Your task to perform on an android device: clear all cookies in the chrome app Image 0: 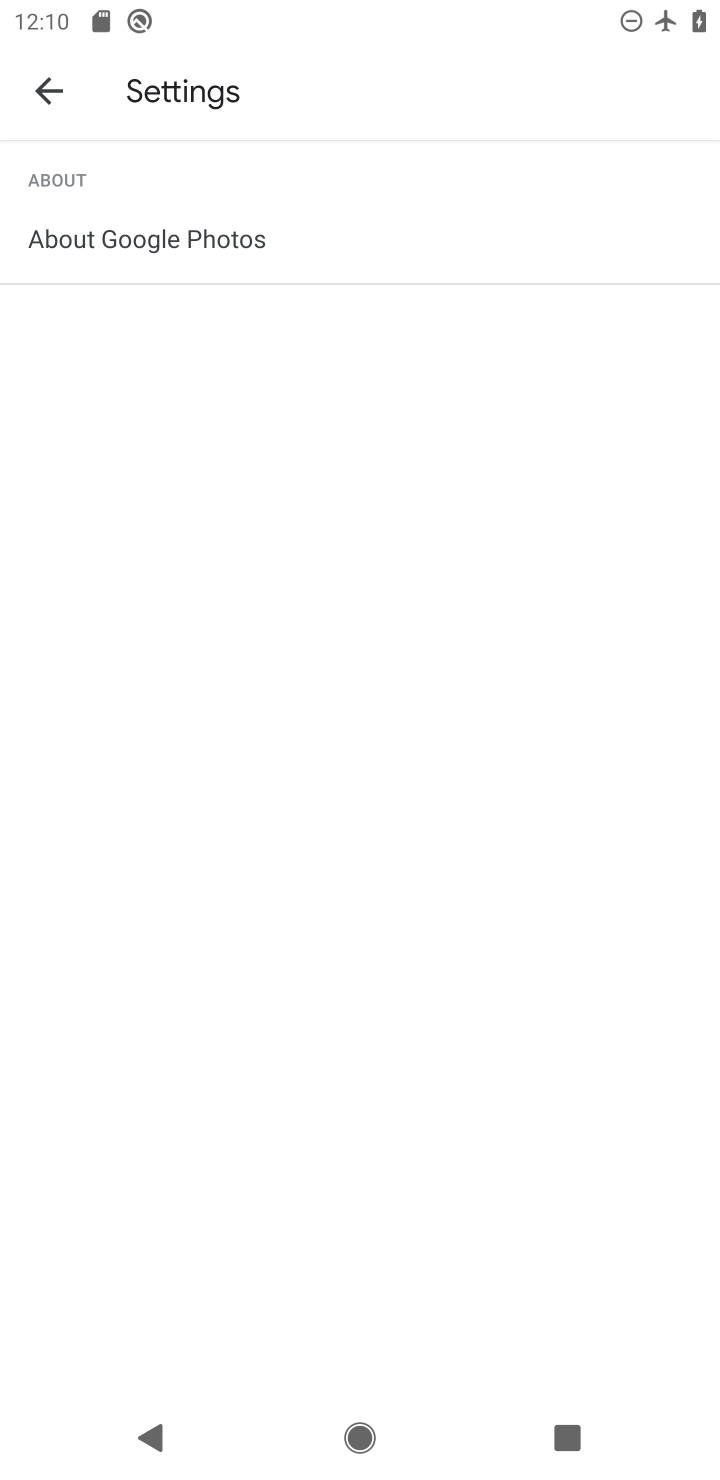
Step 0: press home button
Your task to perform on an android device: clear all cookies in the chrome app Image 1: 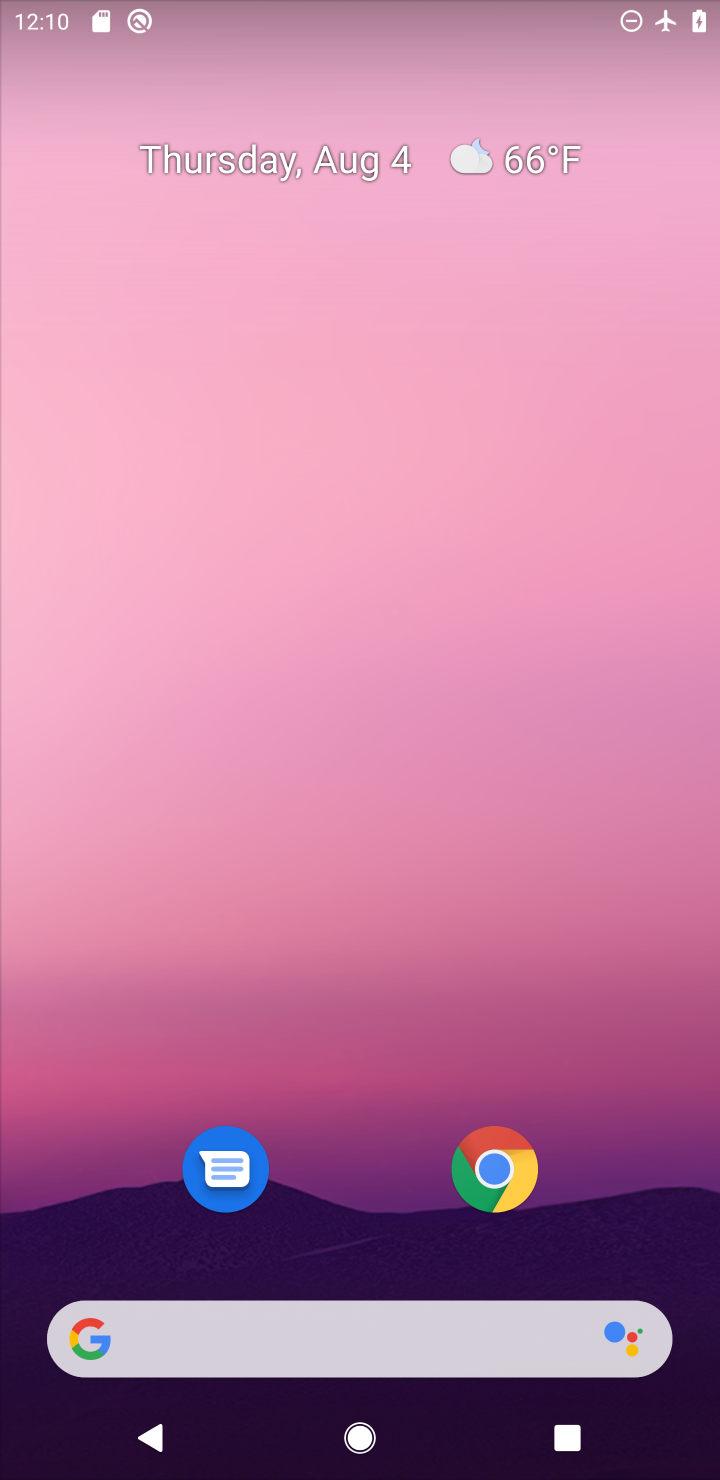
Step 1: click (501, 1170)
Your task to perform on an android device: clear all cookies in the chrome app Image 2: 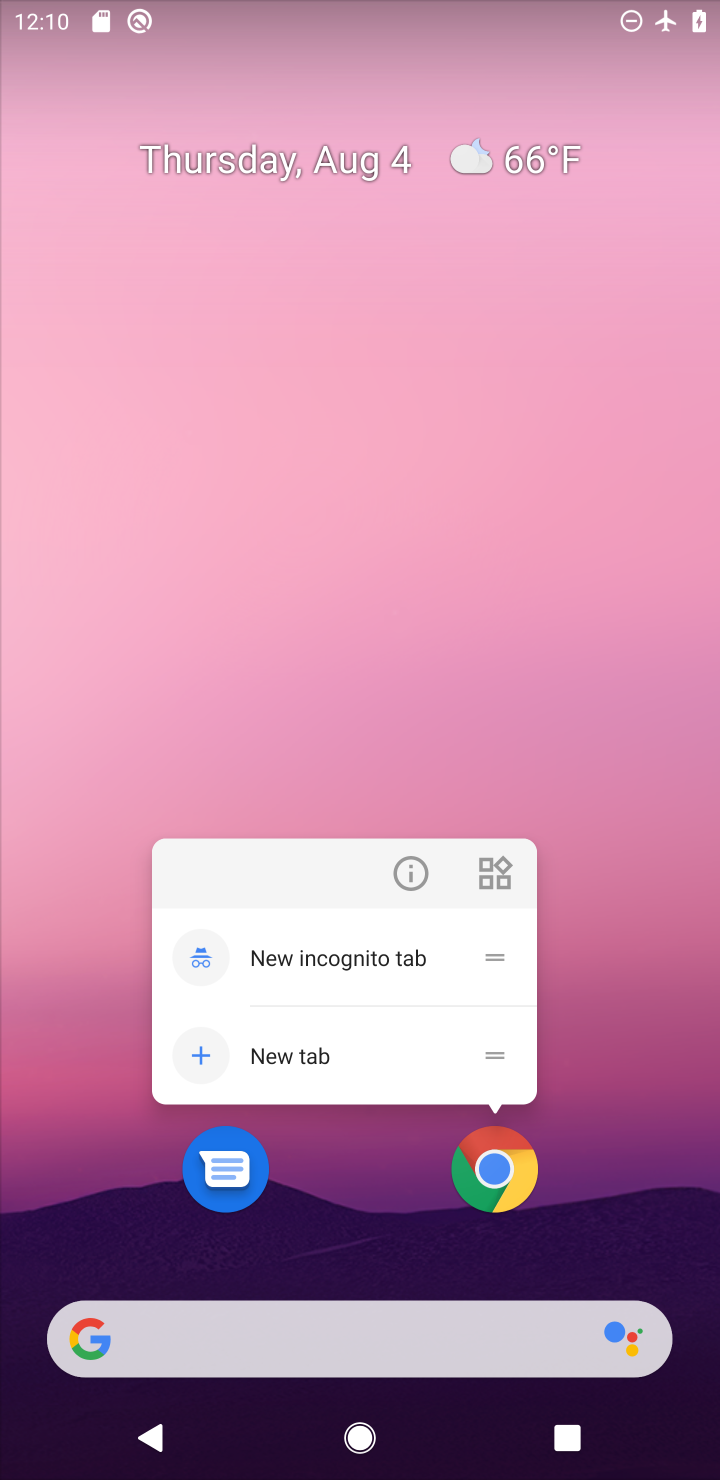
Step 2: click (501, 1170)
Your task to perform on an android device: clear all cookies in the chrome app Image 3: 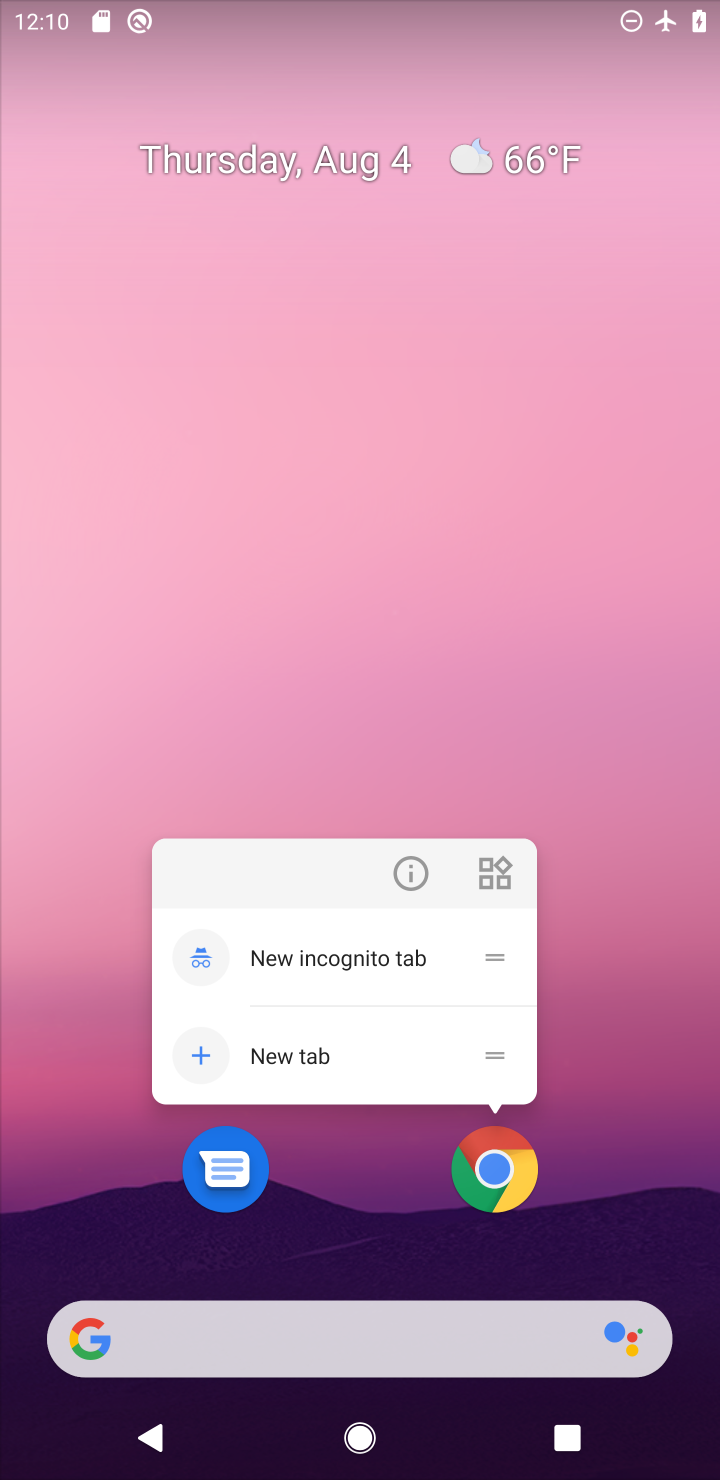
Step 3: click (501, 1172)
Your task to perform on an android device: clear all cookies in the chrome app Image 4: 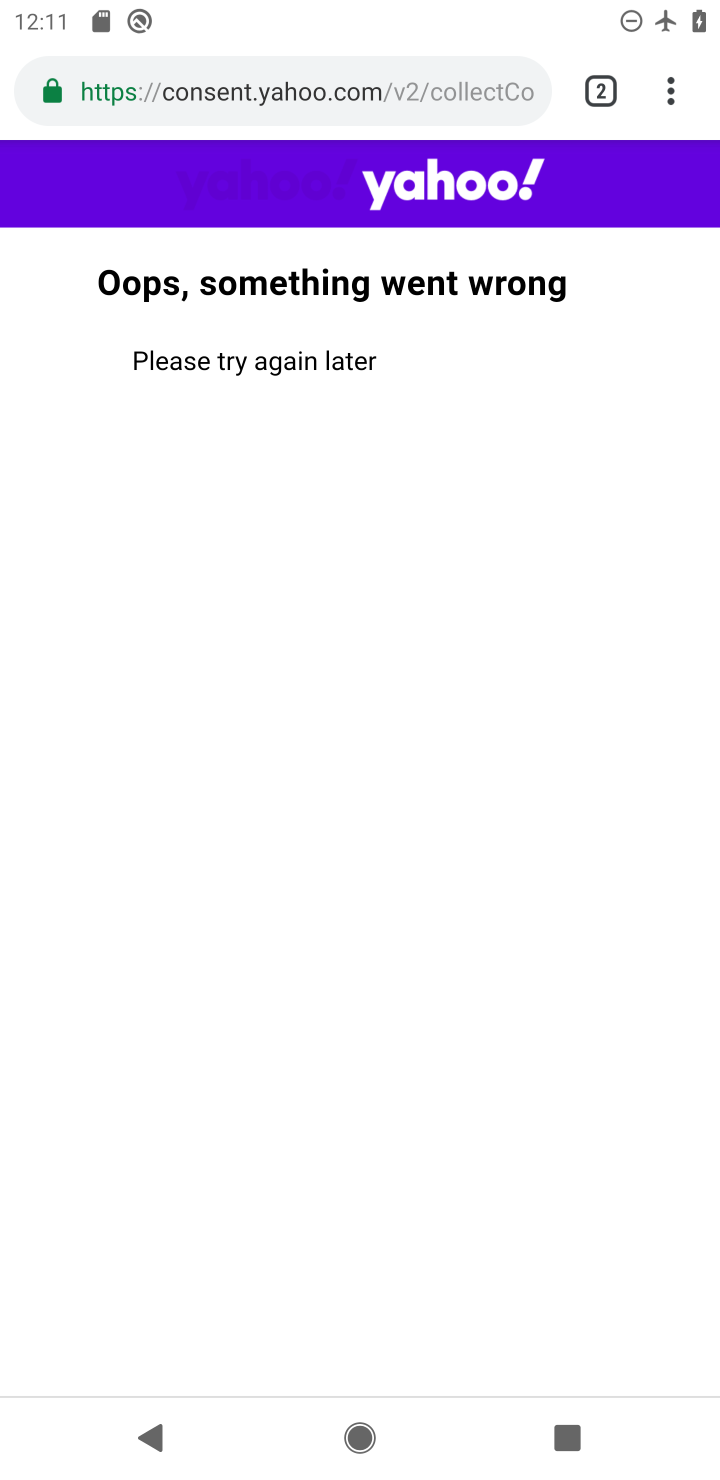
Step 4: click (675, 89)
Your task to perform on an android device: clear all cookies in the chrome app Image 5: 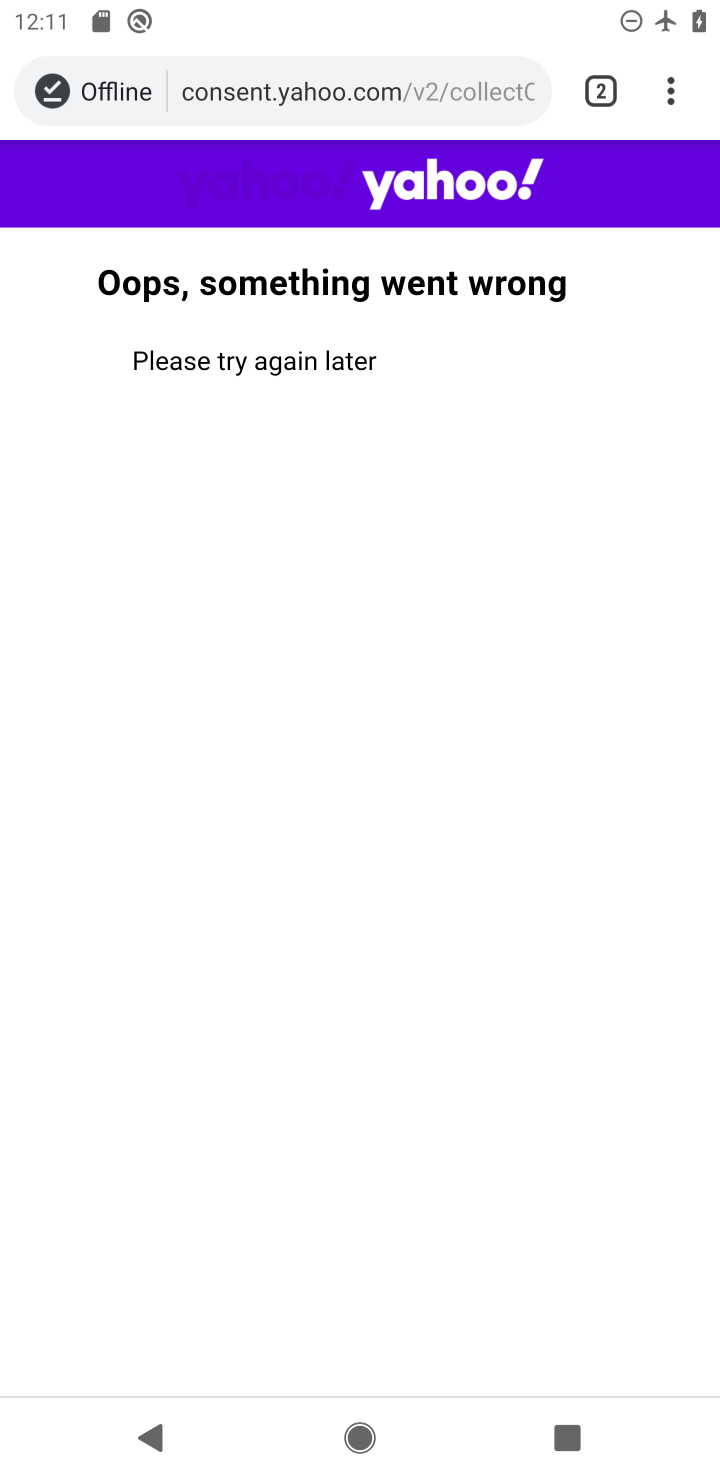
Step 5: click (669, 96)
Your task to perform on an android device: clear all cookies in the chrome app Image 6: 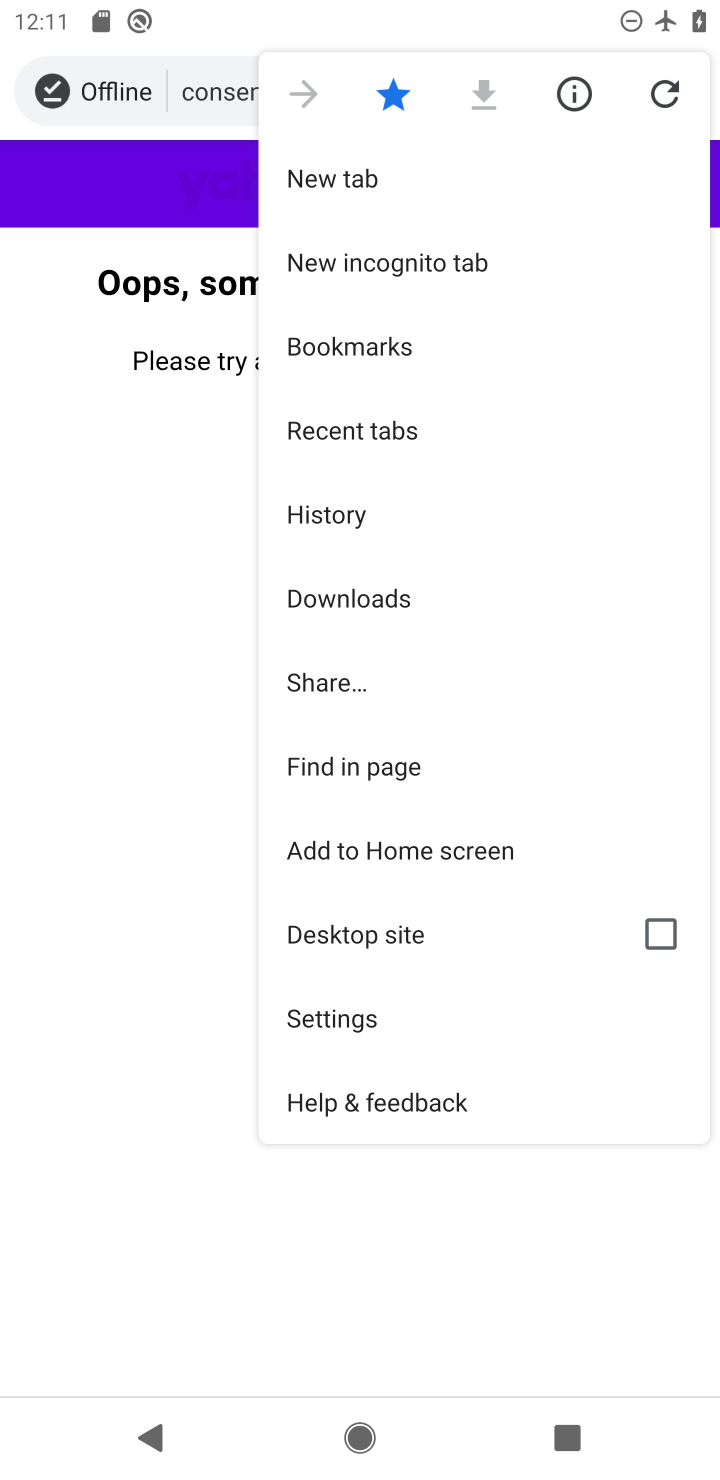
Step 6: click (341, 1019)
Your task to perform on an android device: clear all cookies in the chrome app Image 7: 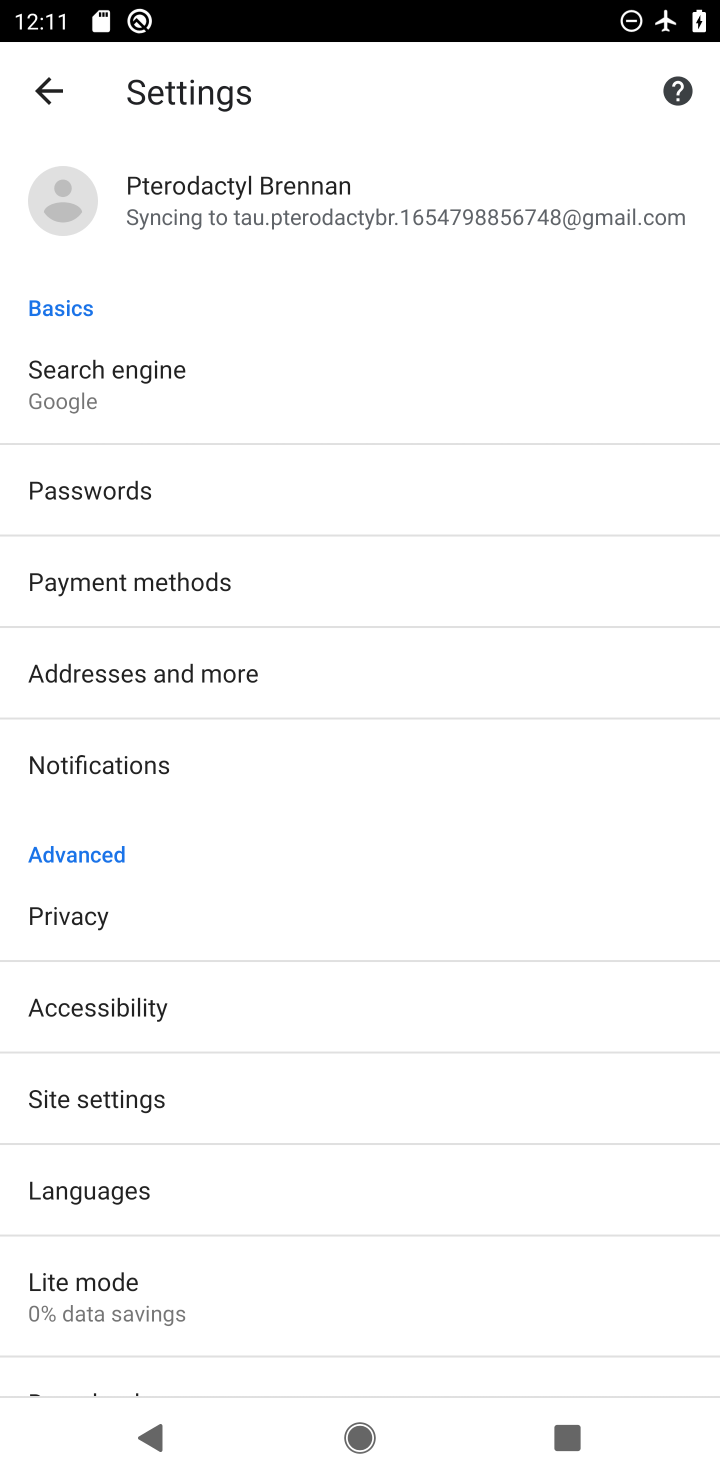
Step 7: click (79, 924)
Your task to perform on an android device: clear all cookies in the chrome app Image 8: 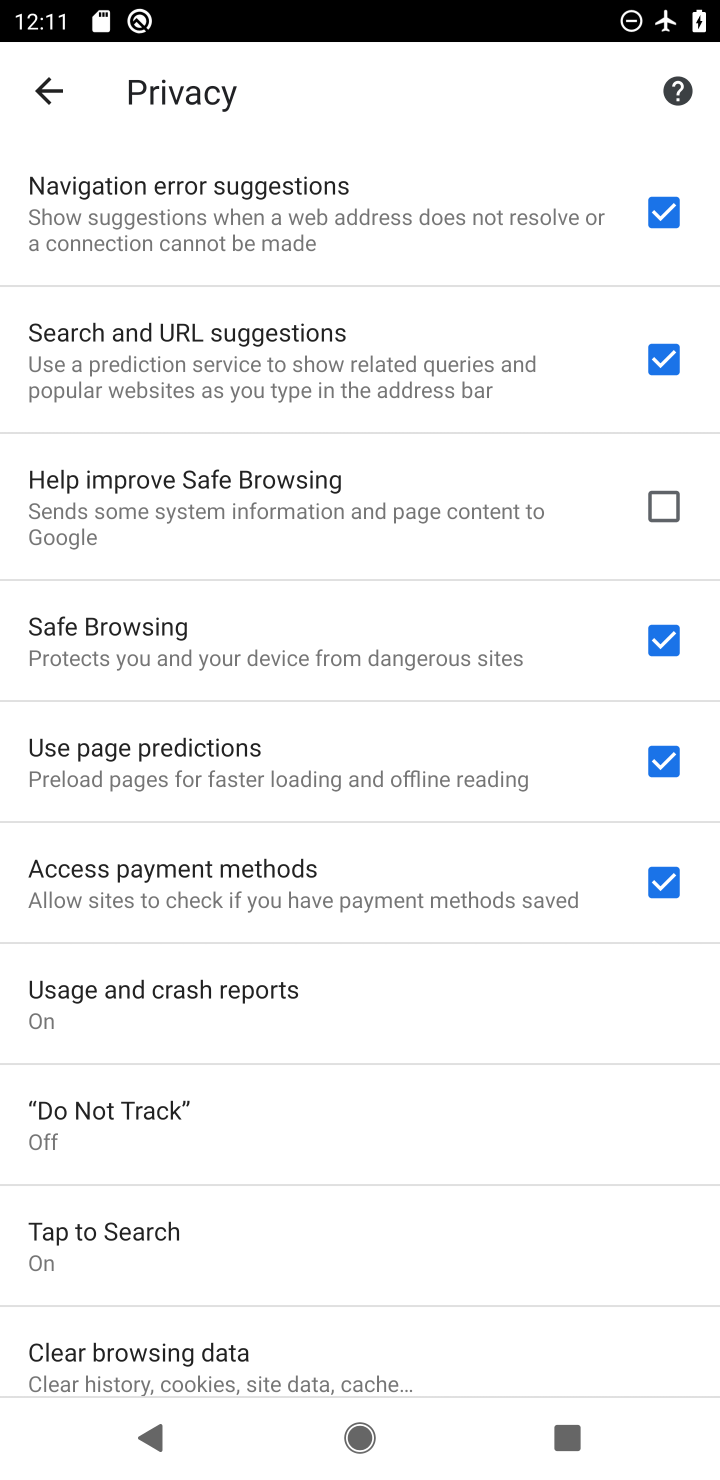
Step 8: drag from (279, 1209) to (279, 826)
Your task to perform on an android device: clear all cookies in the chrome app Image 9: 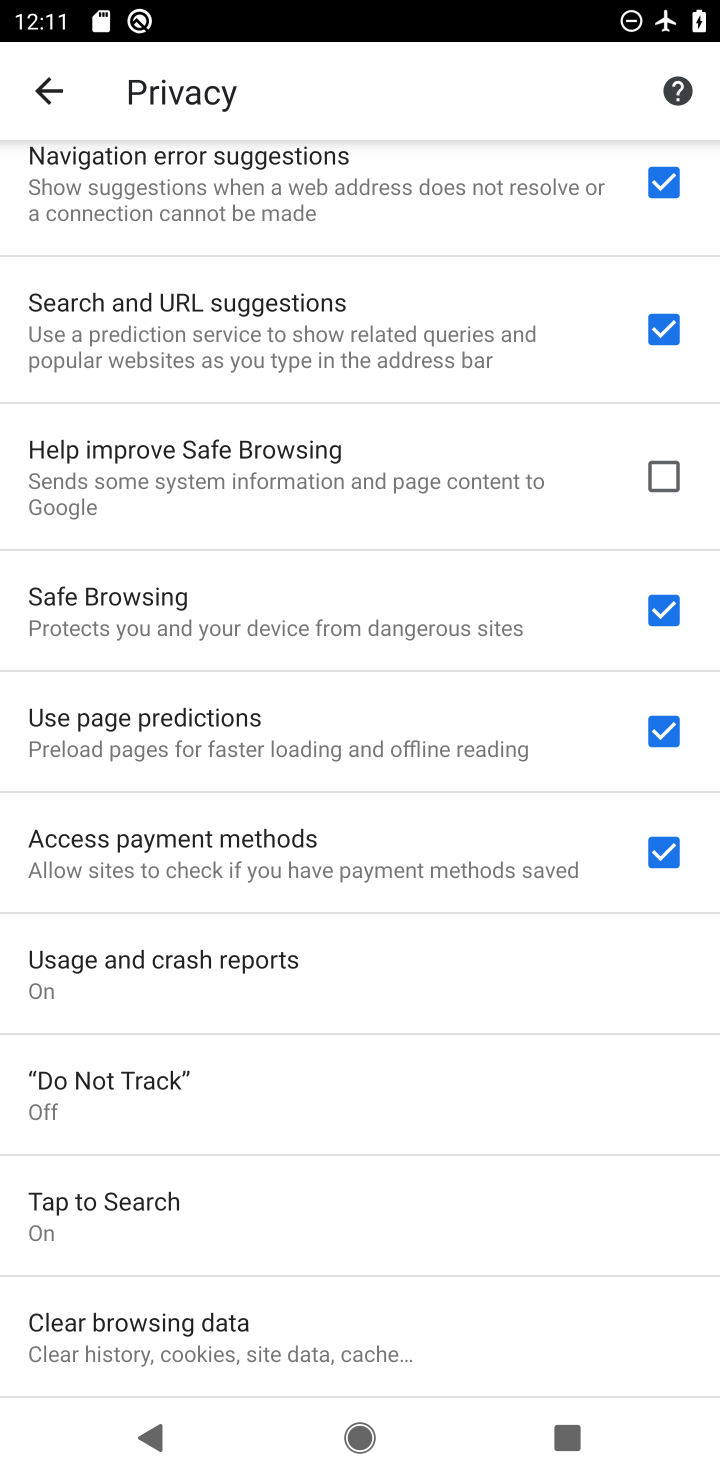
Step 9: click (134, 1339)
Your task to perform on an android device: clear all cookies in the chrome app Image 10: 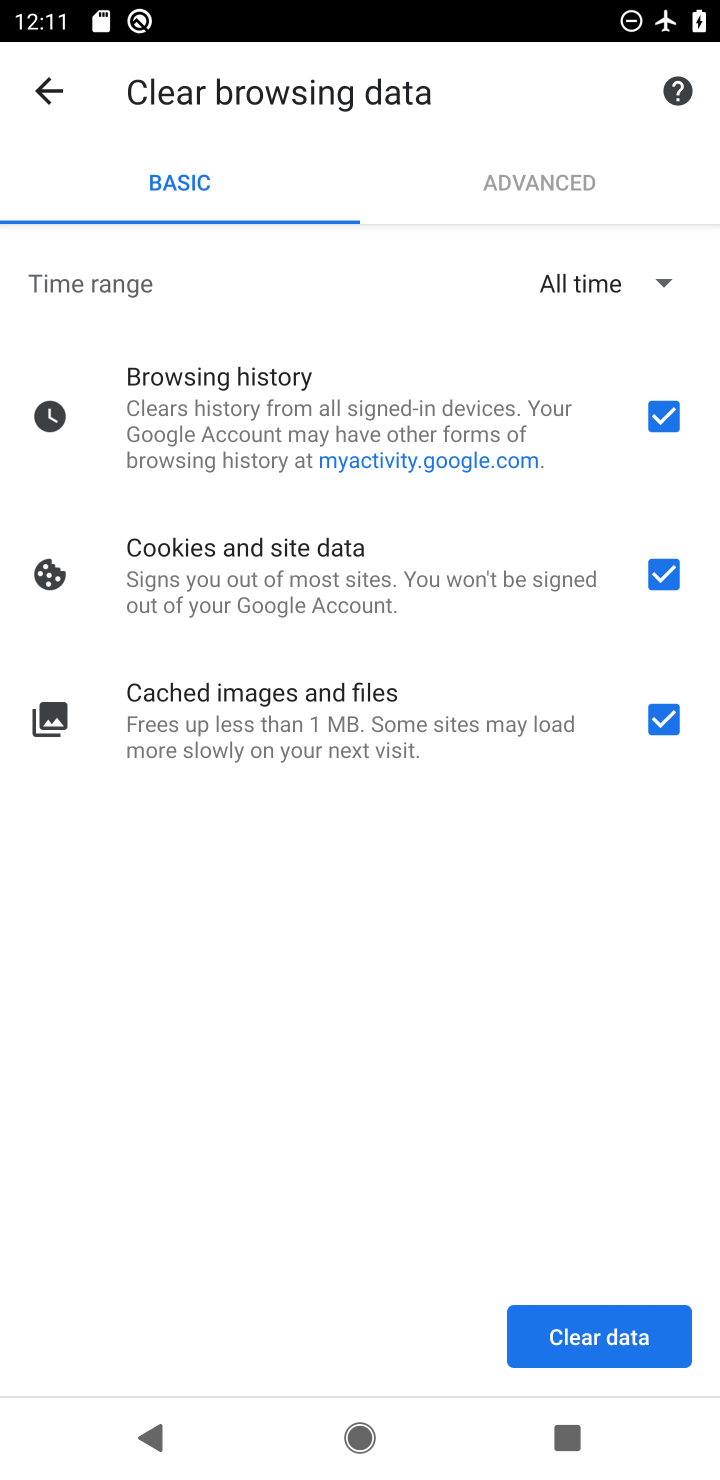
Step 10: click (673, 716)
Your task to perform on an android device: clear all cookies in the chrome app Image 11: 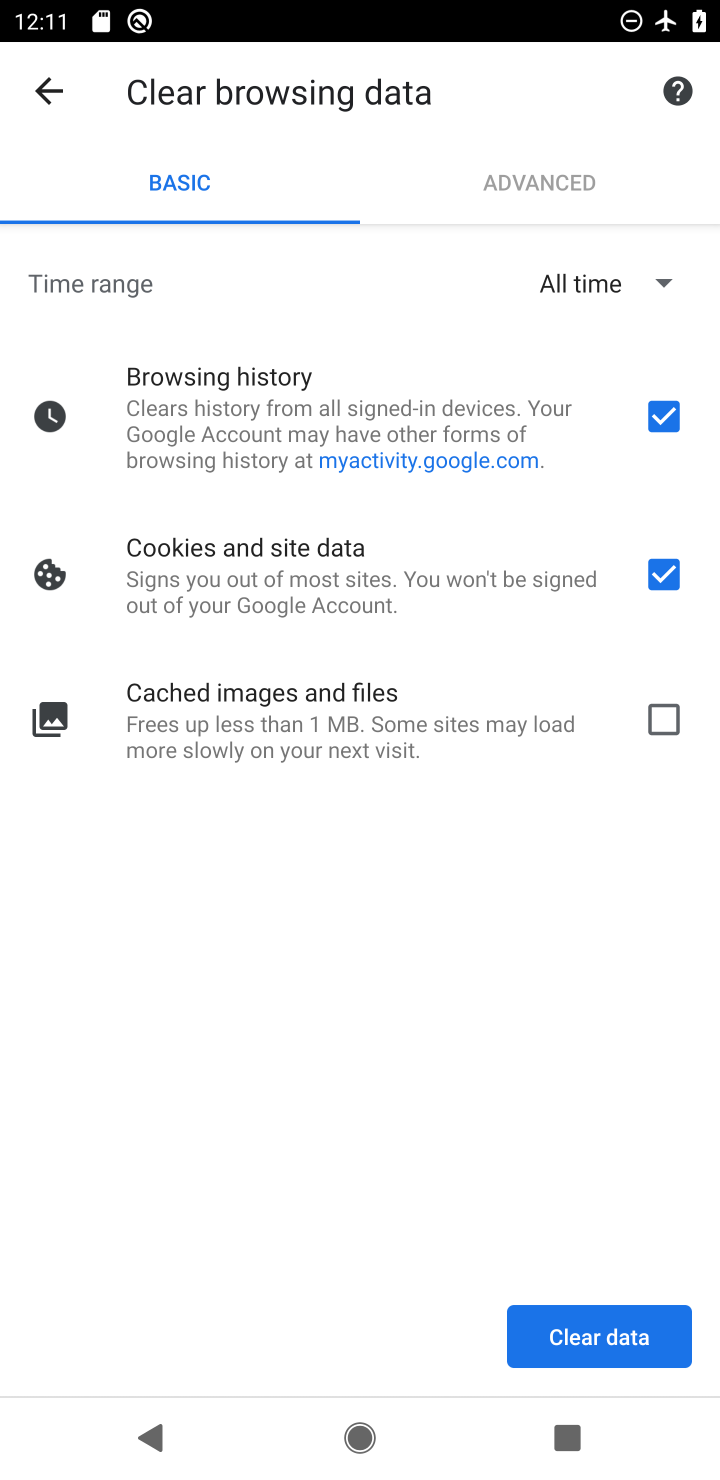
Step 11: click (661, 419)
Your task to perform on an android device: clear all cookies in the chrome app Image 12: 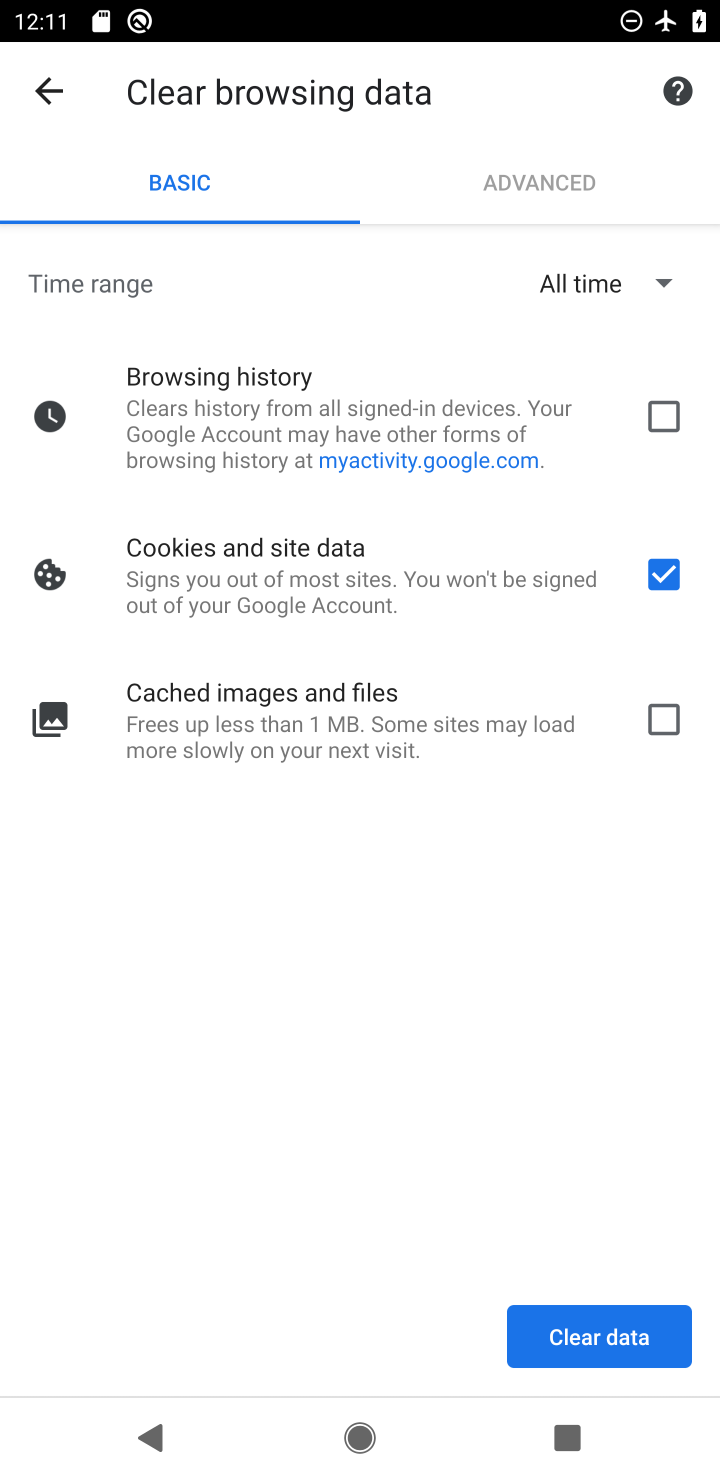
Step 12: click (601, 1343)
Your task to perform on an android device: clear all cookies in the chrome app Image 13: 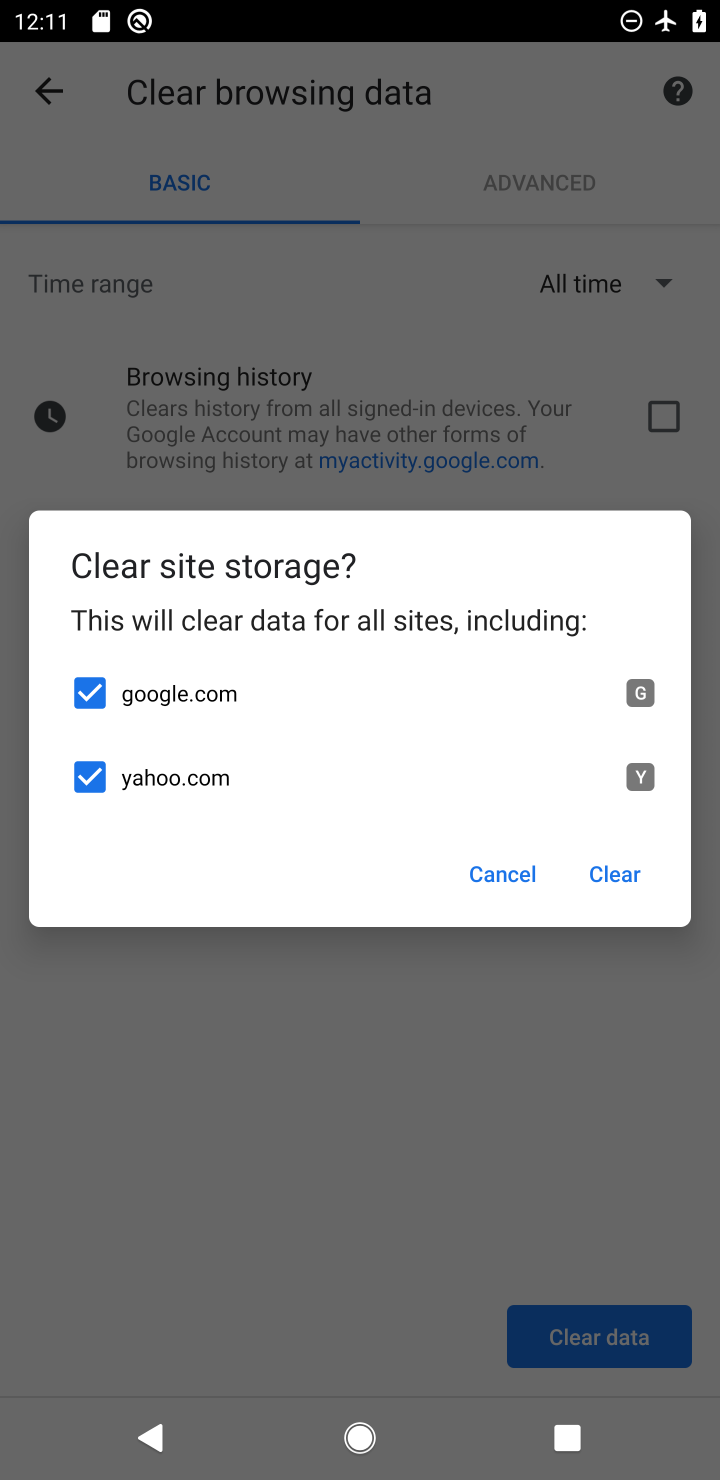
Step 13: click (610, 894)
Your task to perform on an android device: clear all cookies in the chrome app Image 14: 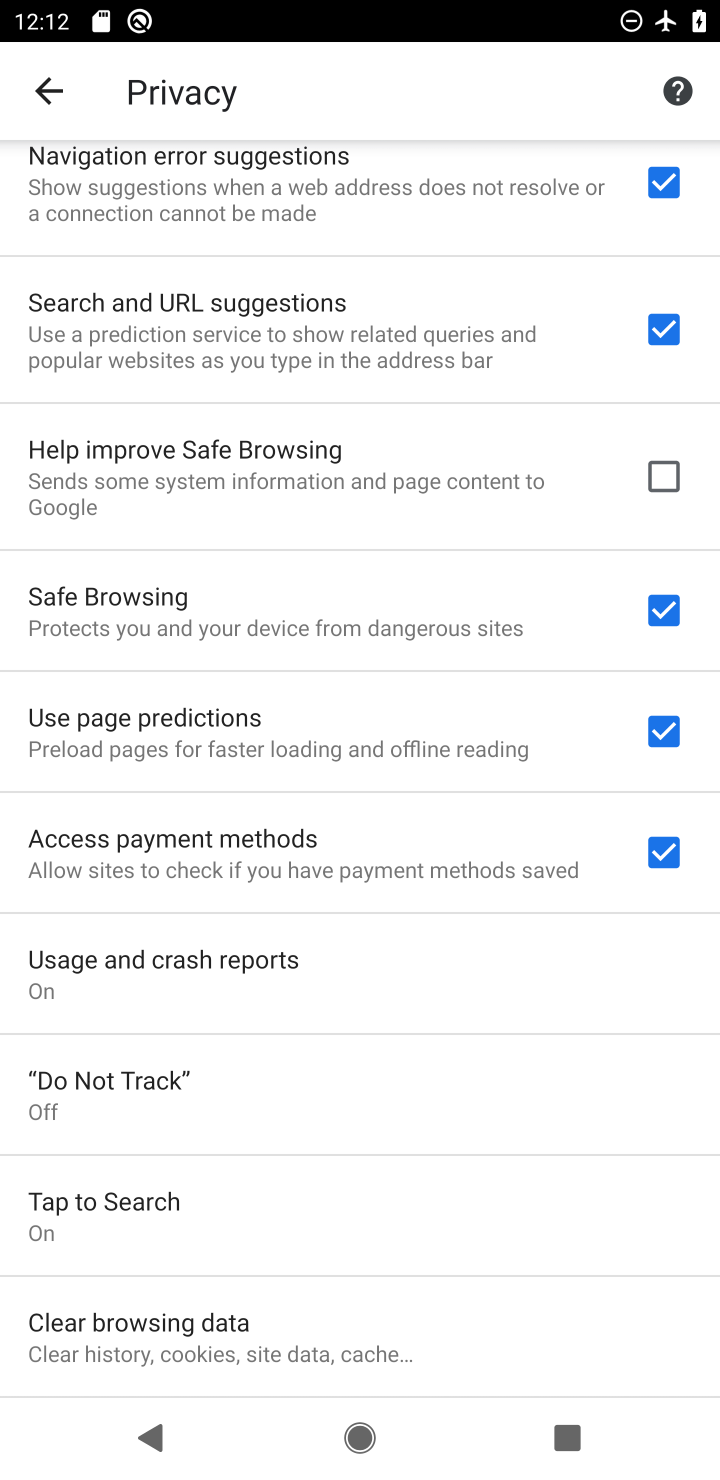
Step 14: task complete